Your task to perform on an android device: View the shopping cart on bestbuy.com. Add "dell xps" to the cart on bestbuy.com Image 0: 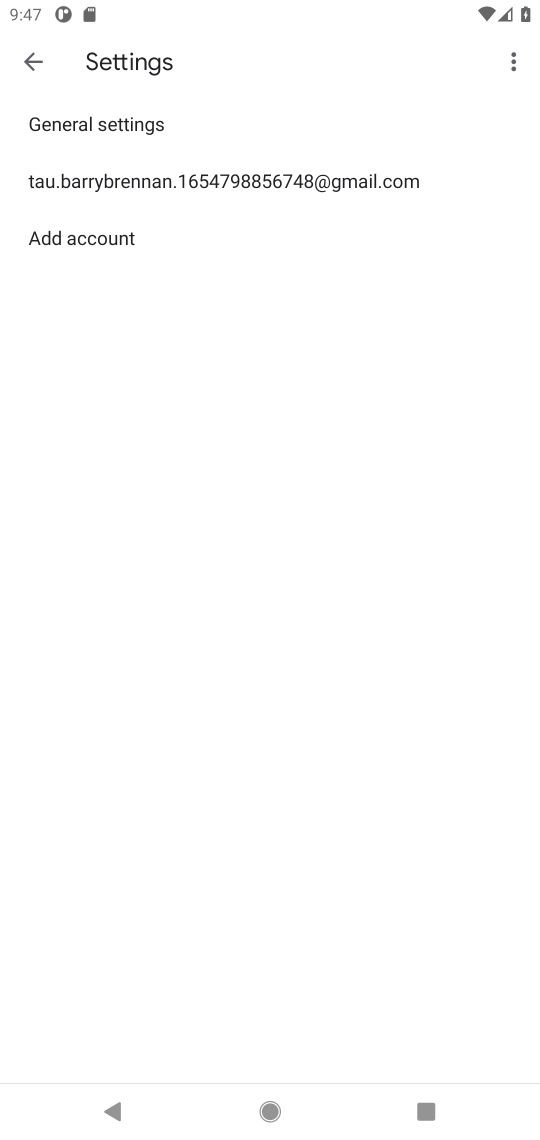
Step 0: press home button
Your task to perform on an android device: View the shopping cart on bestbuy.com. Add "dell xps" to the cart on bestbuy.com Image 1: 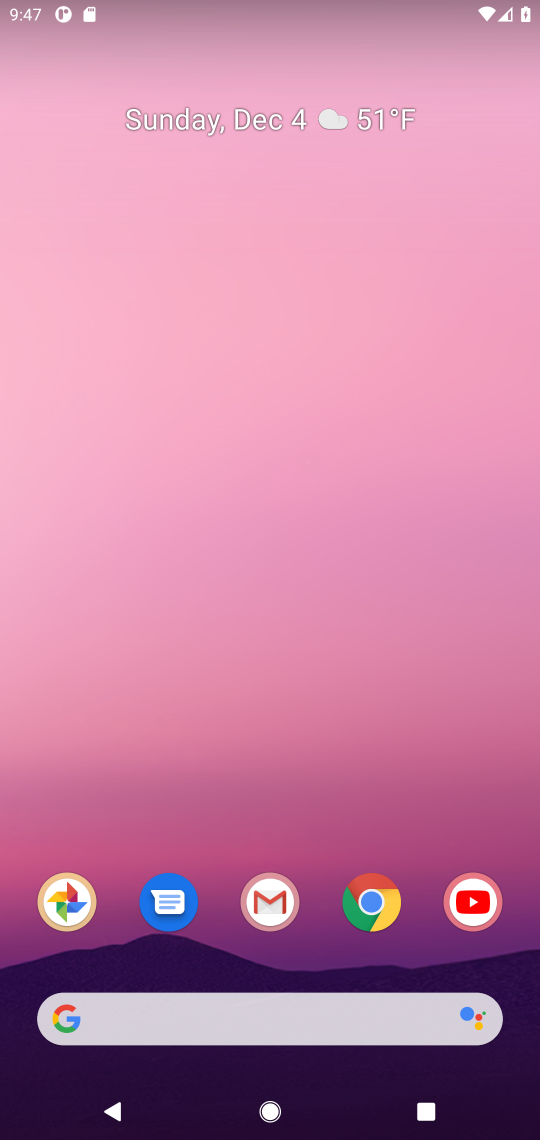
Step 1: click (371, 918)
Your task to perform on an android device: View the shopping cart on bestbuy.com. Add "dell xps" to the cart on bestbuy.com Image 2: 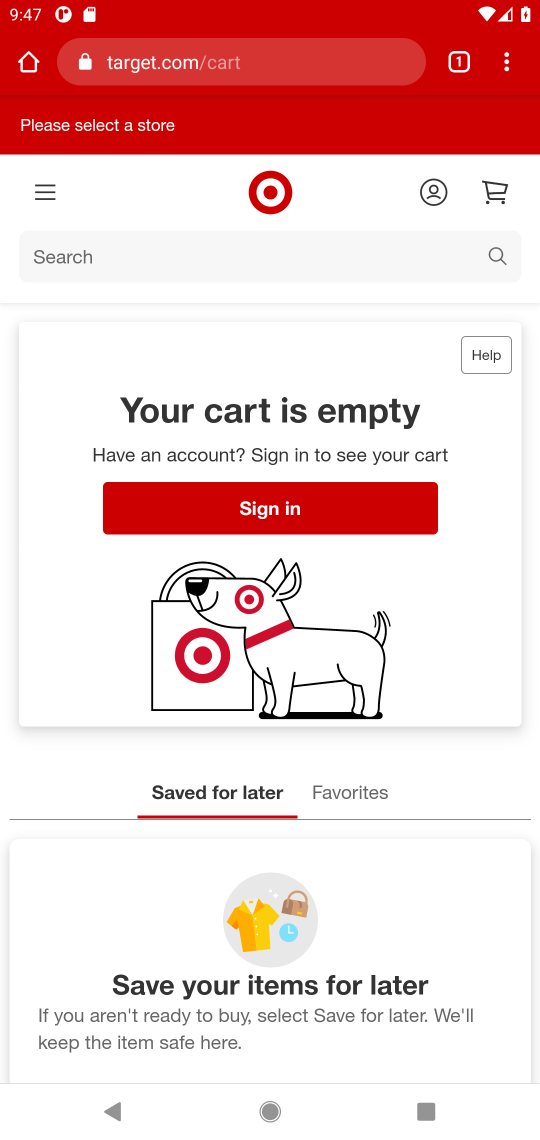
Step 2: click (195, 52)
Your task to perform on an android device: View the shopping cart on bestbuy.com. Add "dell xps" to the cart on bestbuy.com Image 3: 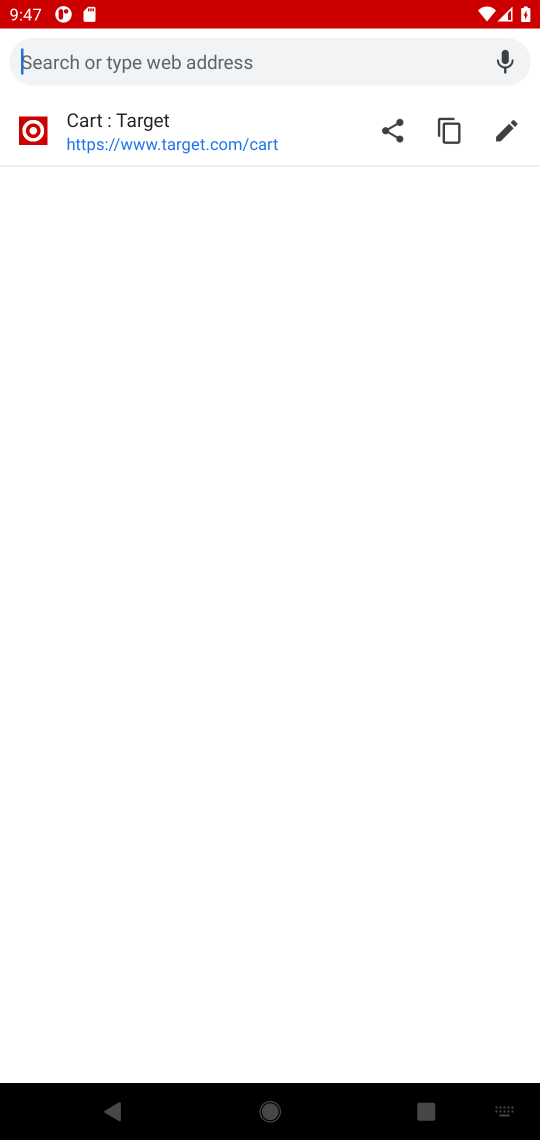
Step 3: click (230, 63)
Your task to perform on an android device: View the shopping cart on bestbuy.com. Add "dell xps" to the cart on bestbuy.com Image 4: 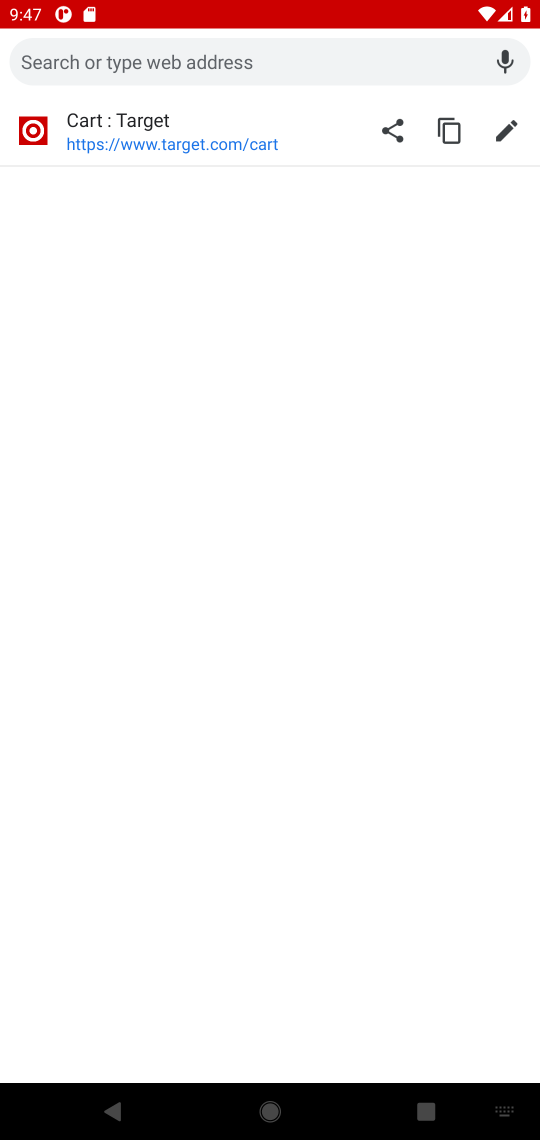
Step 4: type "bestbuy"
Your task to perform on an android device: View the shopping cart on bestbuy.com. Add "dell xps" to the cart on bestbuy.com Image 5: 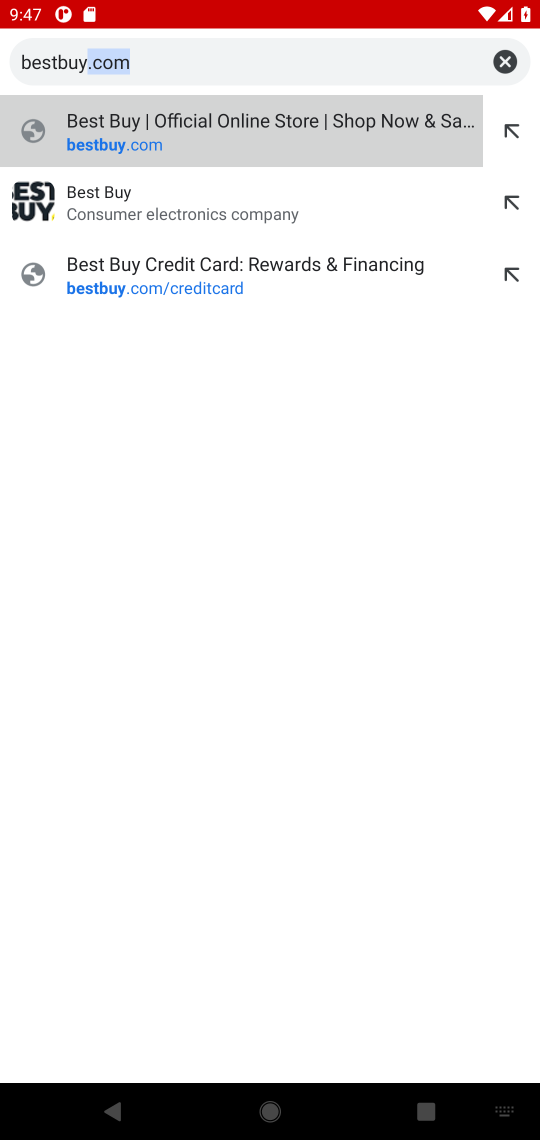
Step 5: click (94, 174)
Your task to perform on an android device: View the shopping cart on bestbuy.com. Add "dell xps" to the cart on bestbuy.com Image 6: 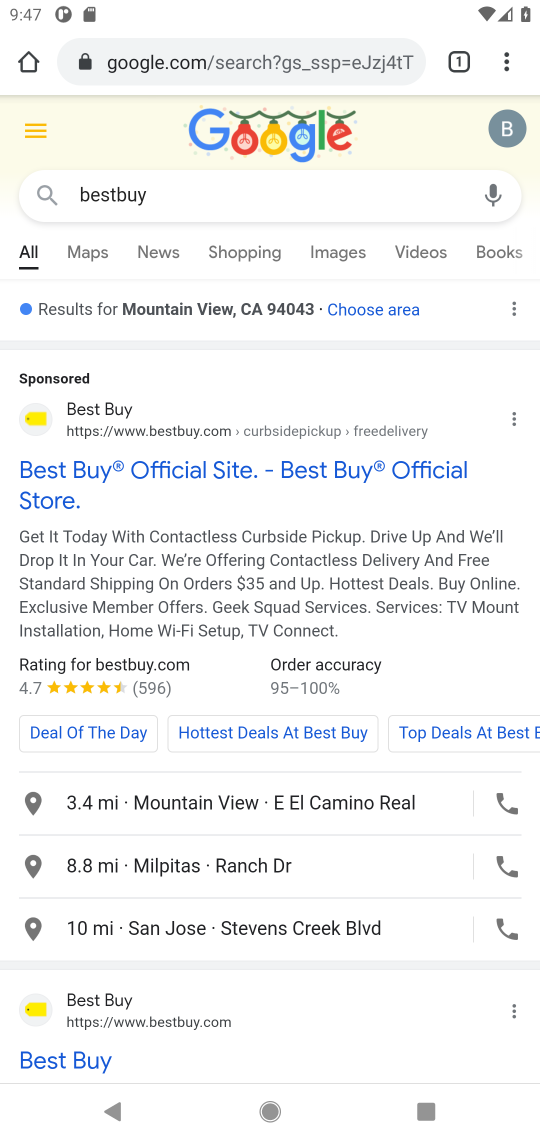
Step 6: click (79, 474)
Your task to perform on an android device: View the shopping cart on bestbuy.com. Add "dell xps" to the cart on bestbuy.com Image 7: 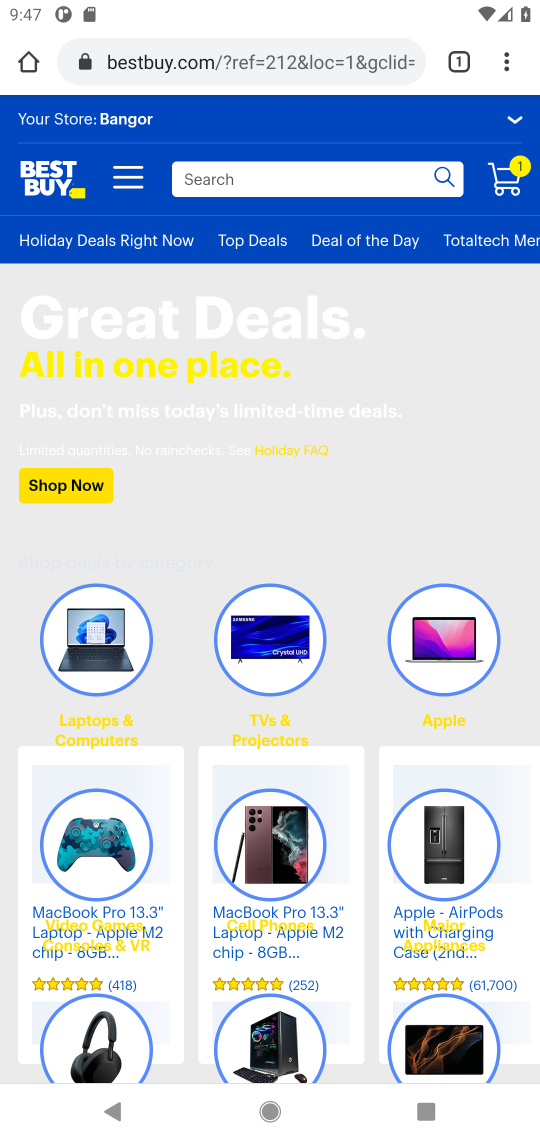
Step 7: click (323, 188)
Your task to perform on an android device: View the shopping cart on bestbuy.com. Add "dell xps" to the cart on bestbuy.com Image 8: 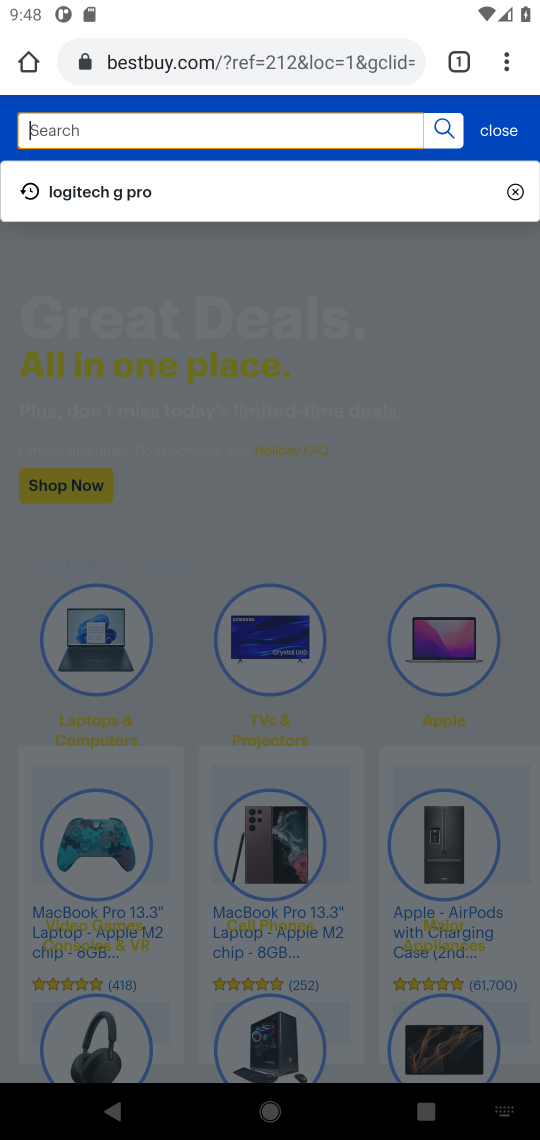
Step 8: type "dell xps"
Your task to perform on an android device: View the shopping cart on bestbuy.com. Add "dell xps" to the cart on bestbuy.com Image 9: 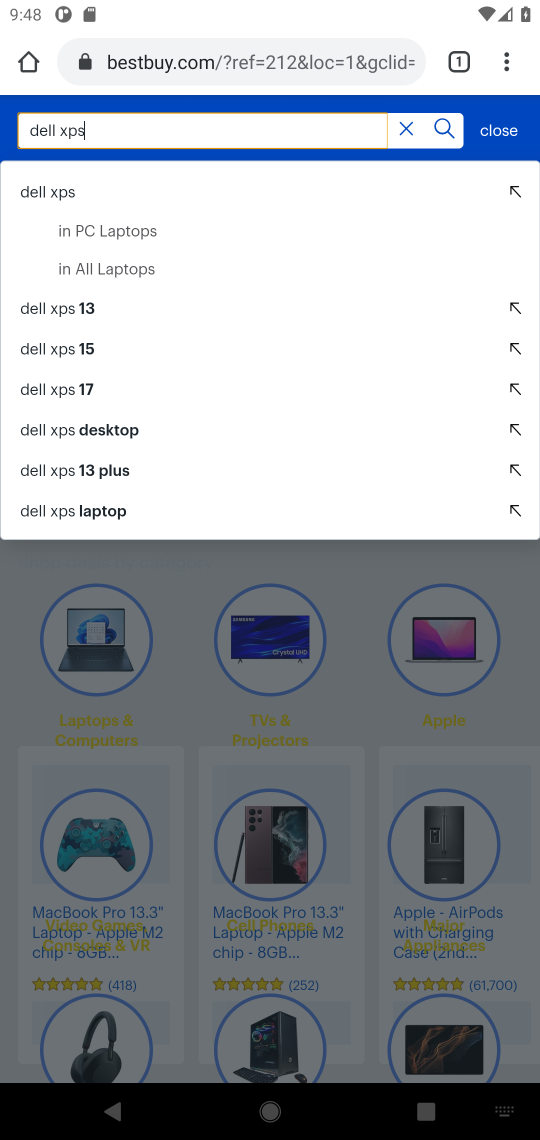
Step 9: click (447, 124)
Your task to perform on an android device: View the shopping cart on bestbuy.com. Add "dell xps" to the cart on bestbuy.com Image 10: 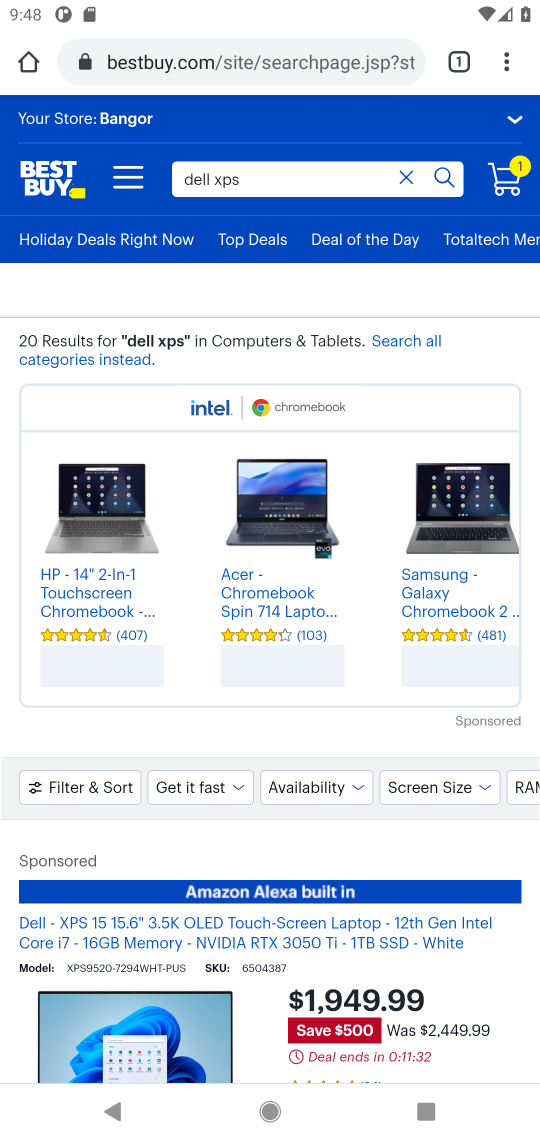
Step 10: drag from (263, 988) to (281, 240)
Your task to perform on an android device: View the shopping cart on bestbuy.com. Add "dell xps" to the cart on bestbuy.com Image 11: 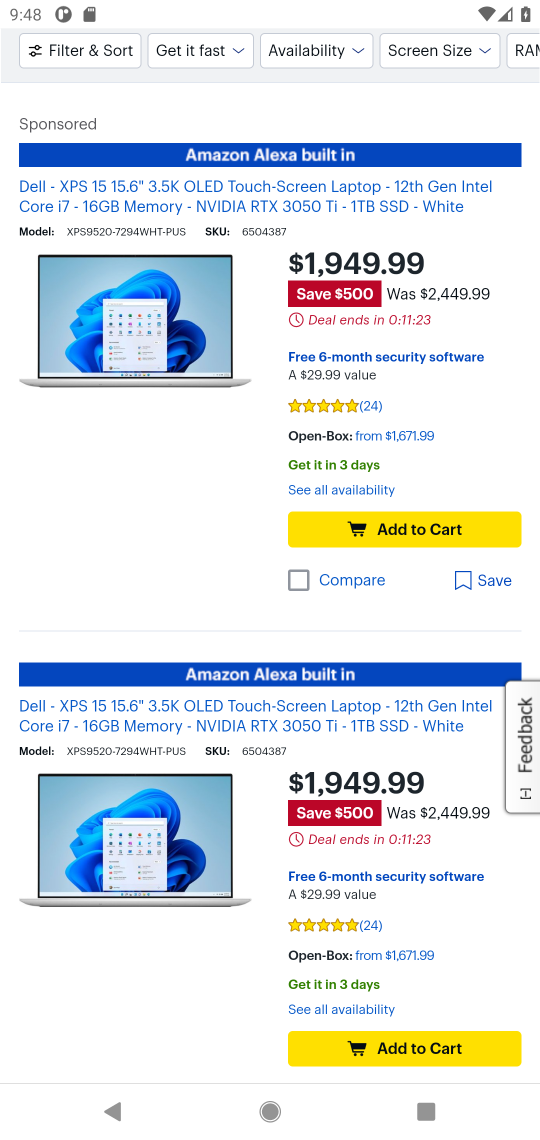
Step 11: click (349, 541)
Your task to perform on an android device: View the shopping cart on bestbuy.com. Add "dell xps" to the cart on bestbuy.com Image 12: 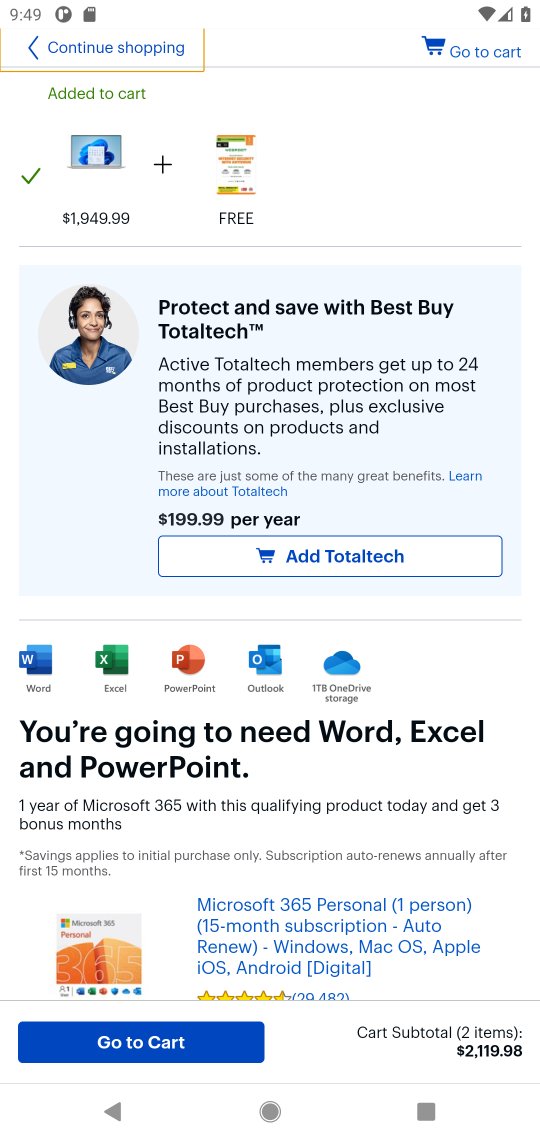
Step 12: task complete